Your task to perform on an android device: Open Chrome and go to the settings page Image 0: 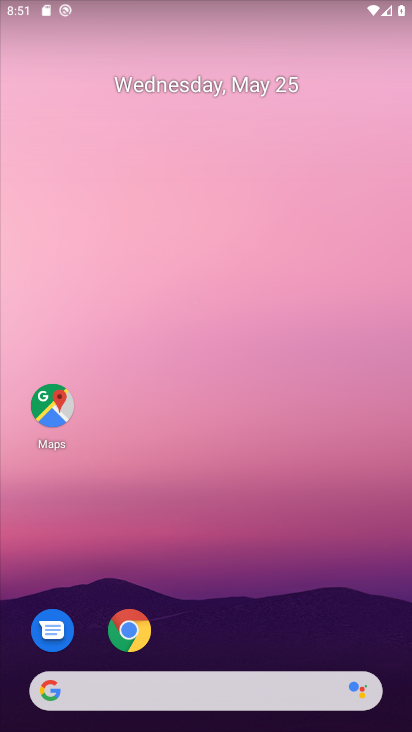
Step 0: click (122, 640)
Your task to perform on an android device: Open Chrome and go to the settings page Image 1: 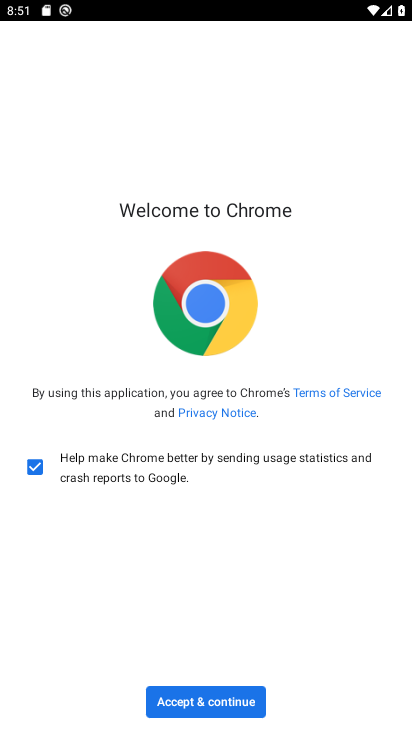
Step 1: click (176, 703)
Your task to perform on an android device: Open Chrome and go to the settings page Image 2: 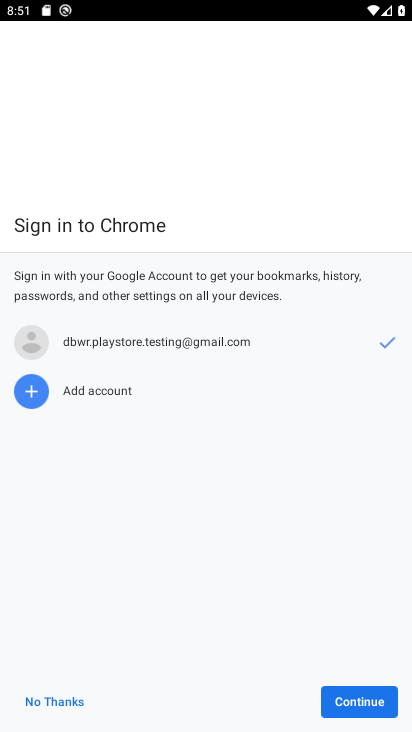
Step 2: click (357, 698)
Your task to perform on an android device: Open Chrome and go to the settings page Image 3: 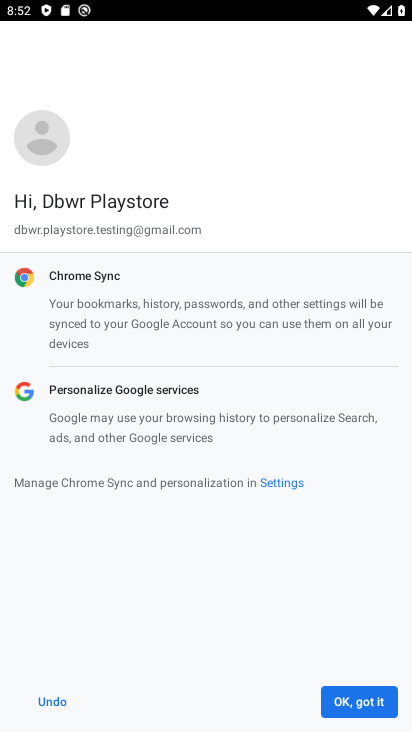
Step 3: click (362, 709)
Your task to perform on an android device: Open Chrome and go to the settings page Image 4: 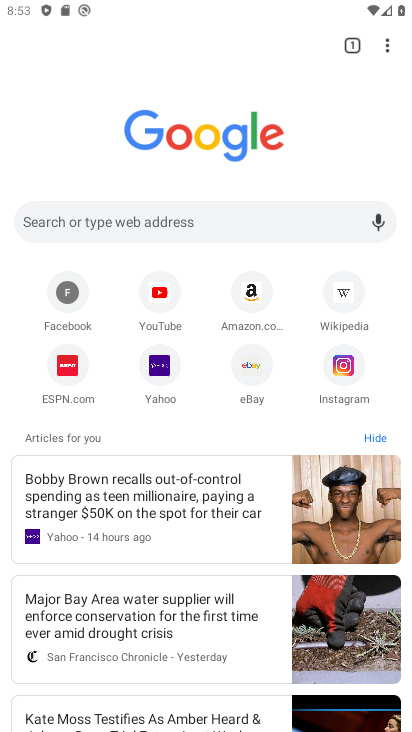
Step 4: click (380, 46)
Your task to perform on an android device: Open Chrome and go to the settings page Image 5: 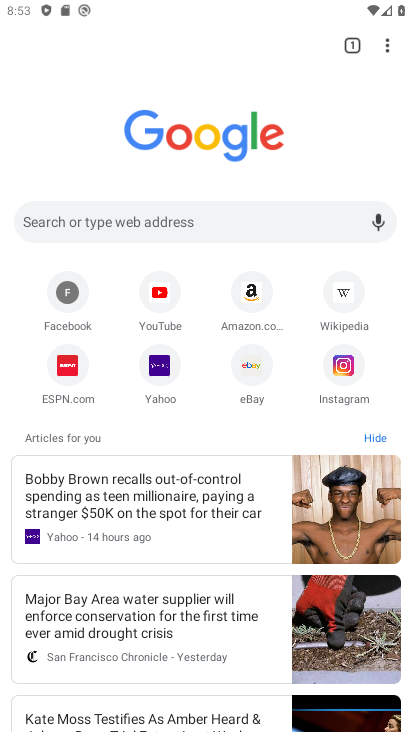
Step 5: click (384, 43)
Your task to perform on an android device: Open Chrome and go to the settings page Image 6: 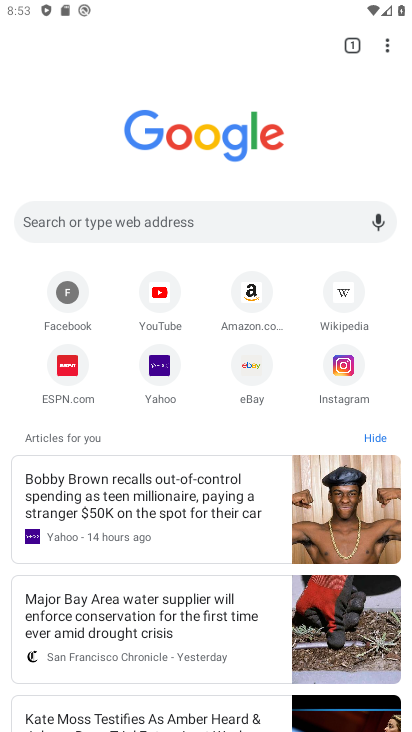
Step 6: click (385, 28)
Your task to perform on an android device: Open Chrome and go to the settings page Image 7: 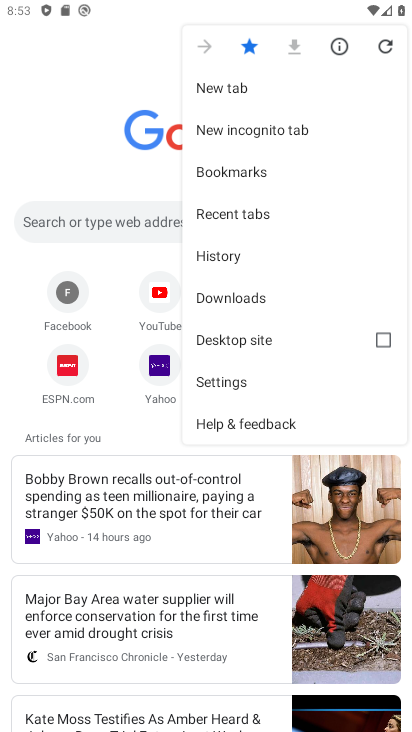
Step 7: click (262, 381)
Your task to perform on an android device: Open Chrome and go to the settings page Image 8: 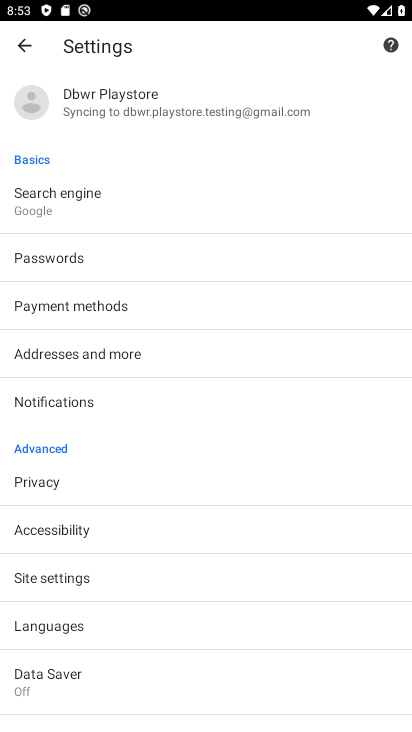
Step 8: task complete